Your task to perform on an android device: set default search engine in the chrome app Image 0: 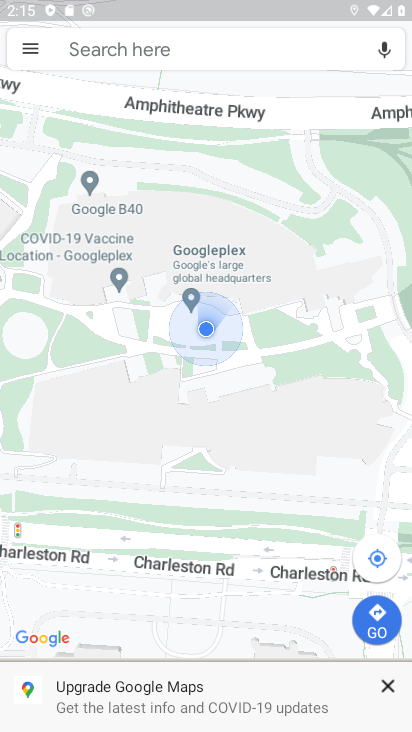
Step 0: press back button
Your task to perform on an android device: set default search engine in the chrome app Image 1: 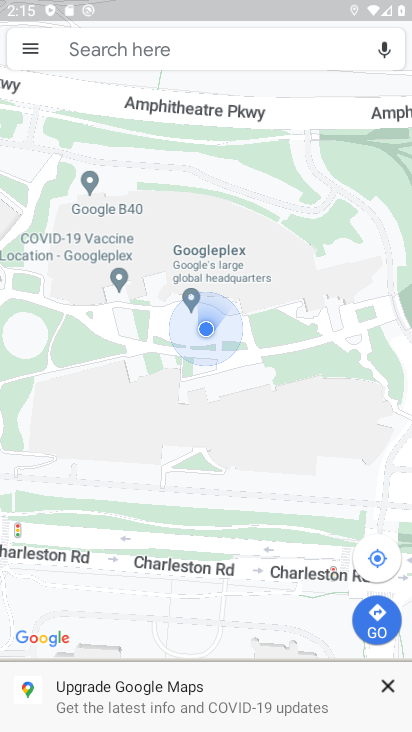
Step 1: press back button
Your task to perform on an android device: set default search engine in the chrome app Image 2: 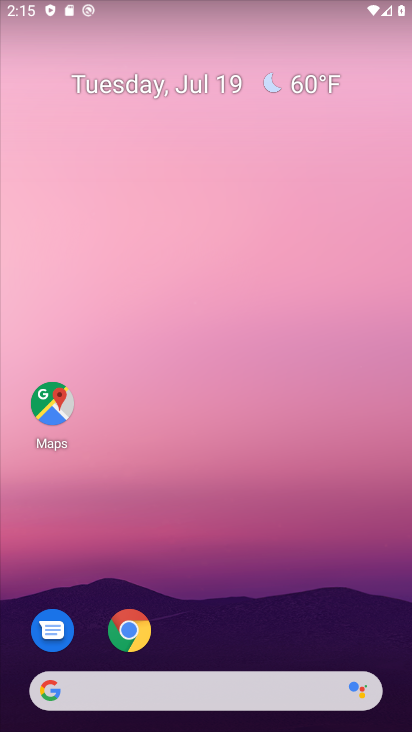
Step 2: click (187, 131)
Your task to perform on an android device: set default search engine in the chrome app Image 3: 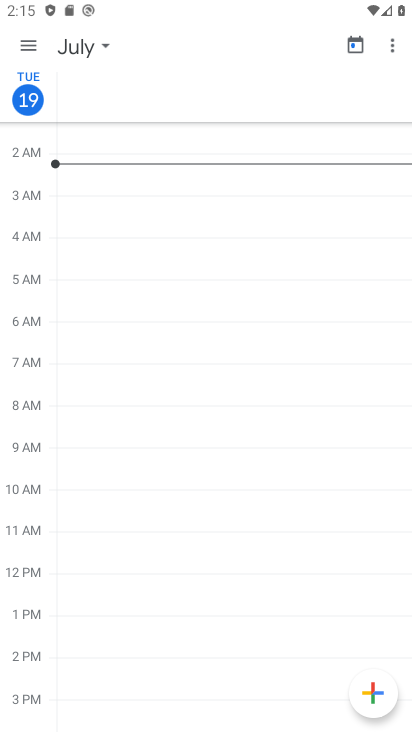
Step 3: drag from (249, 598) to (224, 241)
Your task to perform on an android device: set default search engine in the chrome app Image 4: 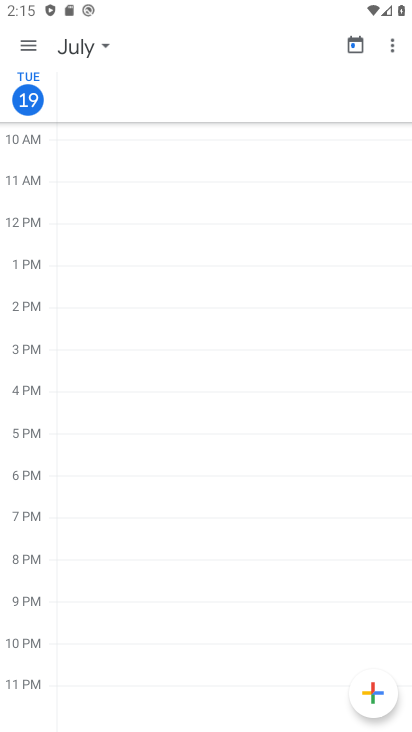
Step 4: drag from (168, 603) to (104, 48)
Your task to perform on an android device: set default search engine in the chrome app Image 5: 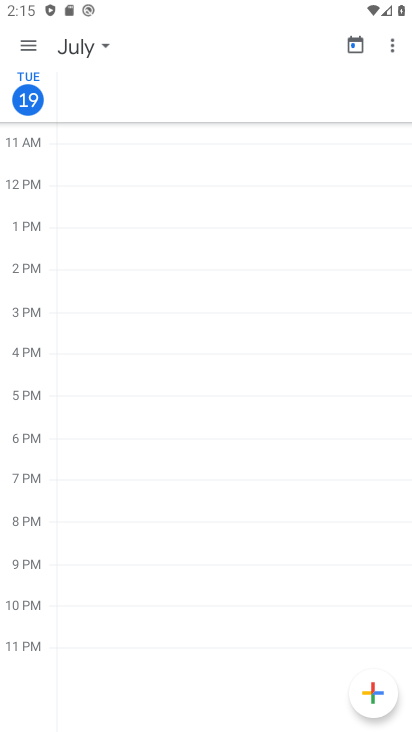
Step 5: press back button
Your task to perform on an android device: set default search engine in the chrome app Image 6: 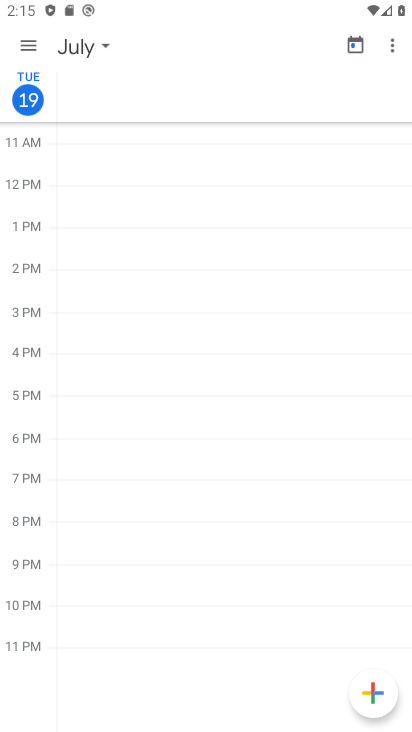
Step 6: press back button
Your task to perform on an android device: set default search engine in the chrome app Image 7: 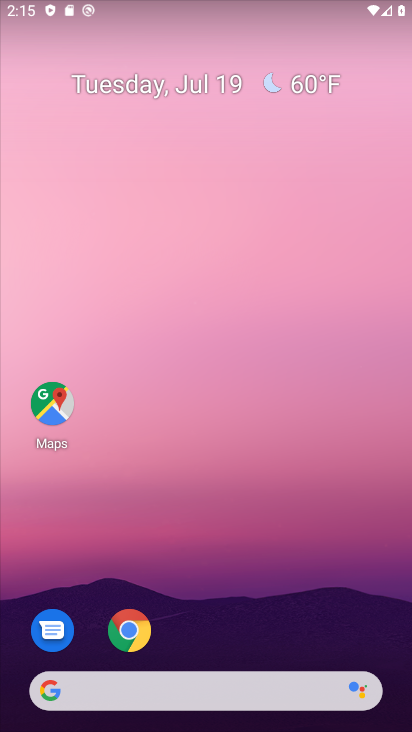
Step 7: drag from (183, 556) to (138, 9)
Your task to perform on an android device: set default search engine in the chrome app Image 8: 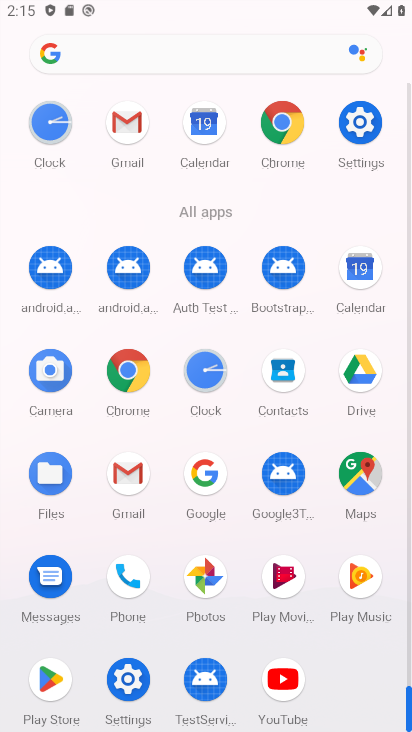
Step 8: click (292, 111)
Your task to perform on an android device: set default search engine in the chrome app Image 9: 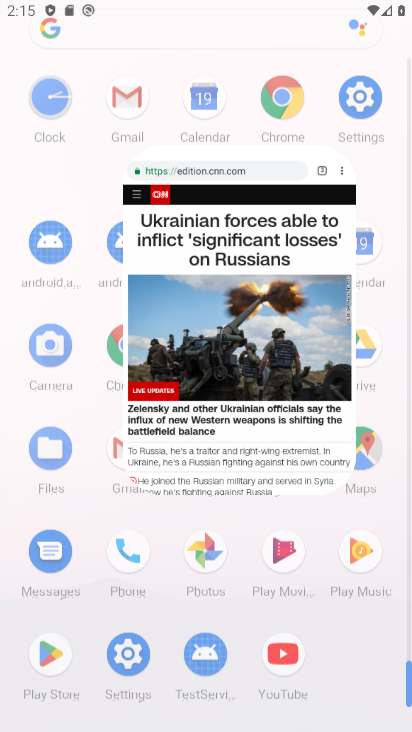
Step 9: click (292, 111)
Your task to perform on an android device: set default search engine in the chrome app Image 10: 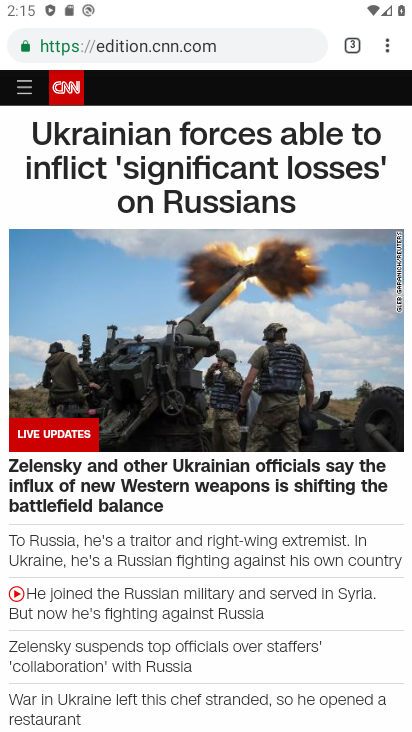
Step 10: drag from (385, 44) to (220, 504)
Your task to perform on an android device: set default search engine in the chrome app Image 11: 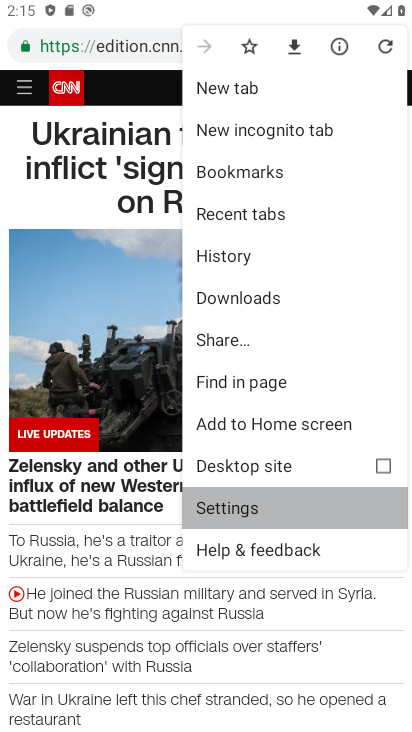
Step 11: click (220, 504)
Your task to perform on an android device: set default search engine in the chrome app Image 12: 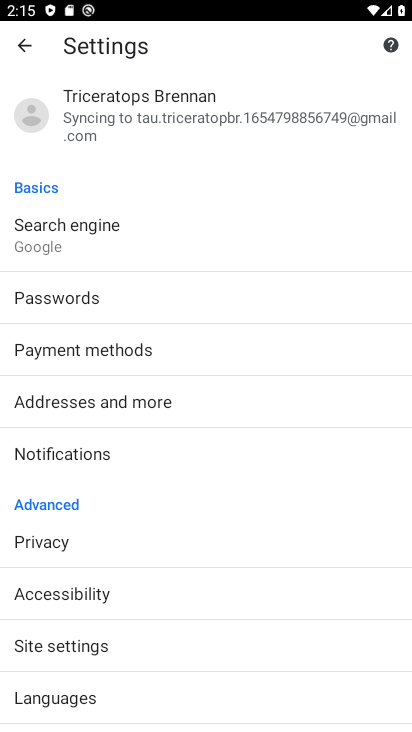
Step 12: click (48, 224)
Your task to perform on an android device: set default search engine in the chrome app Image 13: 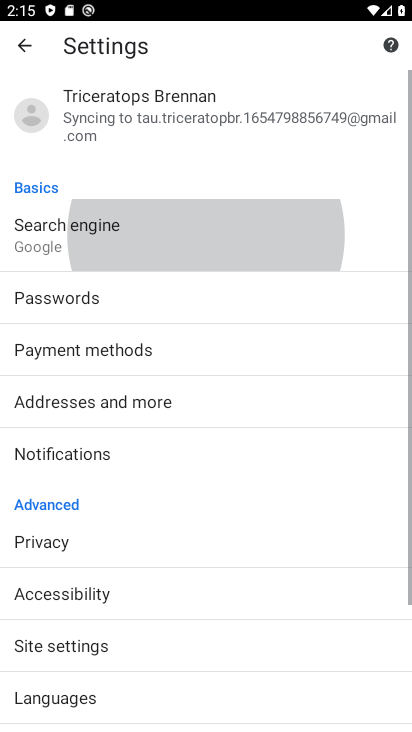
Step 13: click (50, 225)
Your task to perform on an android device: set default search engine in the chrome app Image 14: 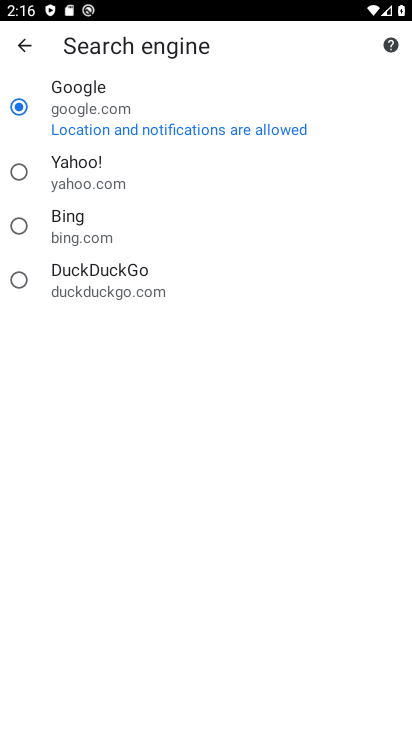
Step 14: task complete